Your task to perform on an android device: open app "Google Calendar" (install if not already installed) Image 0: 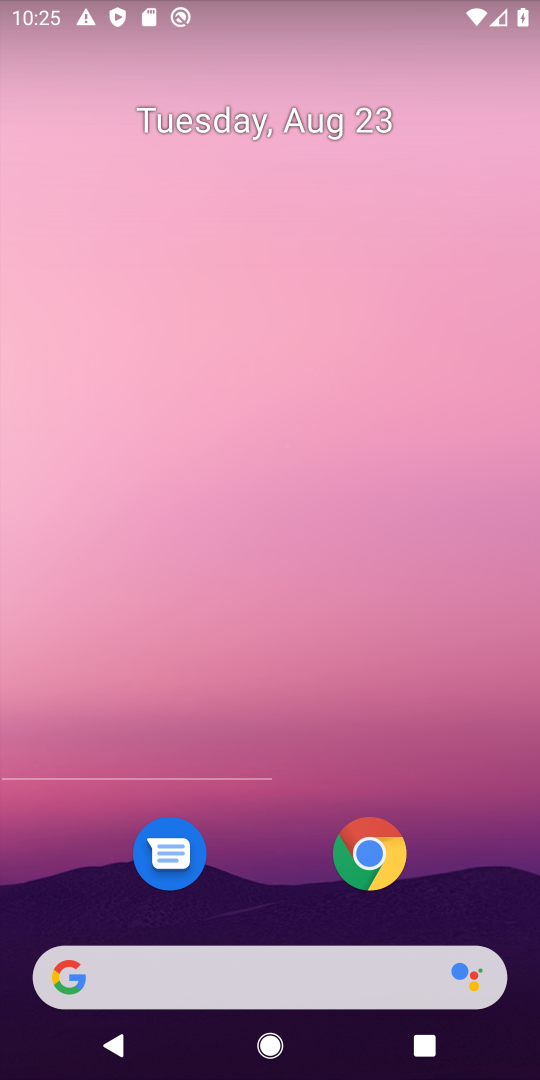
Step 0: drag from (365, 1022) to (375, 129)
Your task to perform on an android device: open app "Google Calendar" (install if not already installed) Image 1: 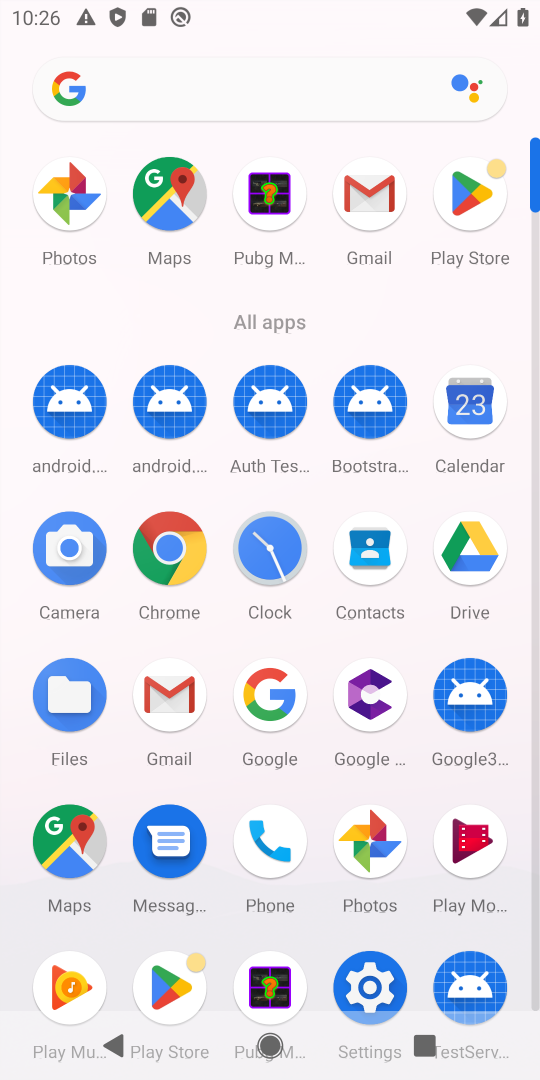
Step 1: click (453, 204)
Your task to perform on an android device: open app "Google Calendar" (install if not already installed) Image 2: 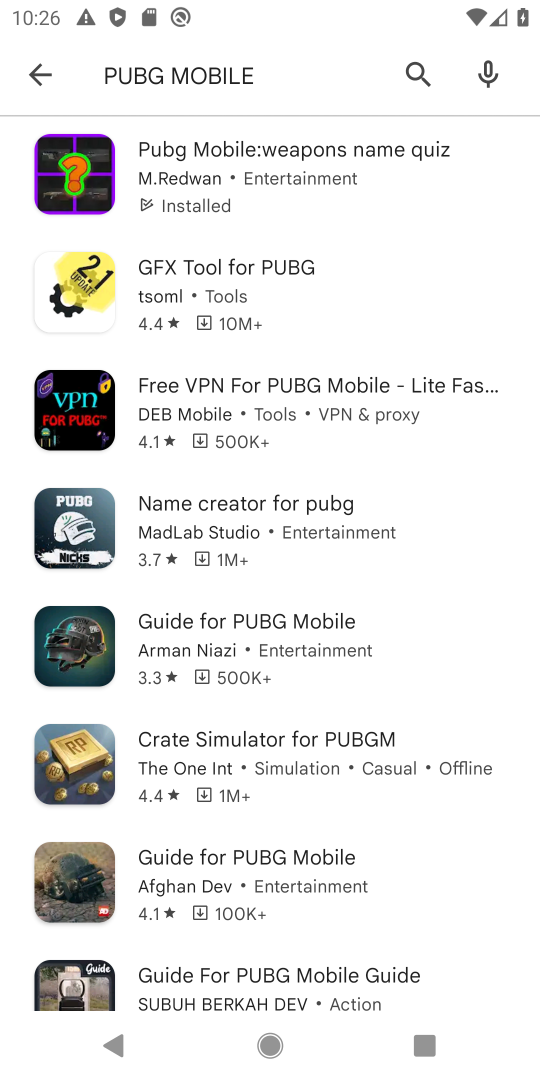
Step 2: press back button
Your task to perform on an android device: open app "Google Calendar" (install if not already installed) Image 3: 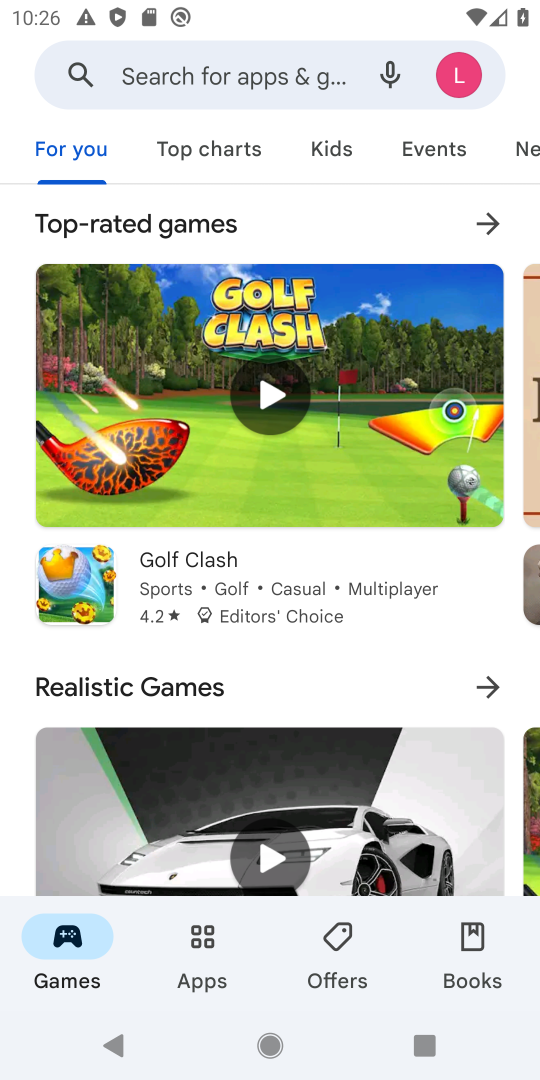
Step 3: click (243, 95)
Your task to perform on an android device: open app "Google Calendar" (install if not already installed) Image 4: 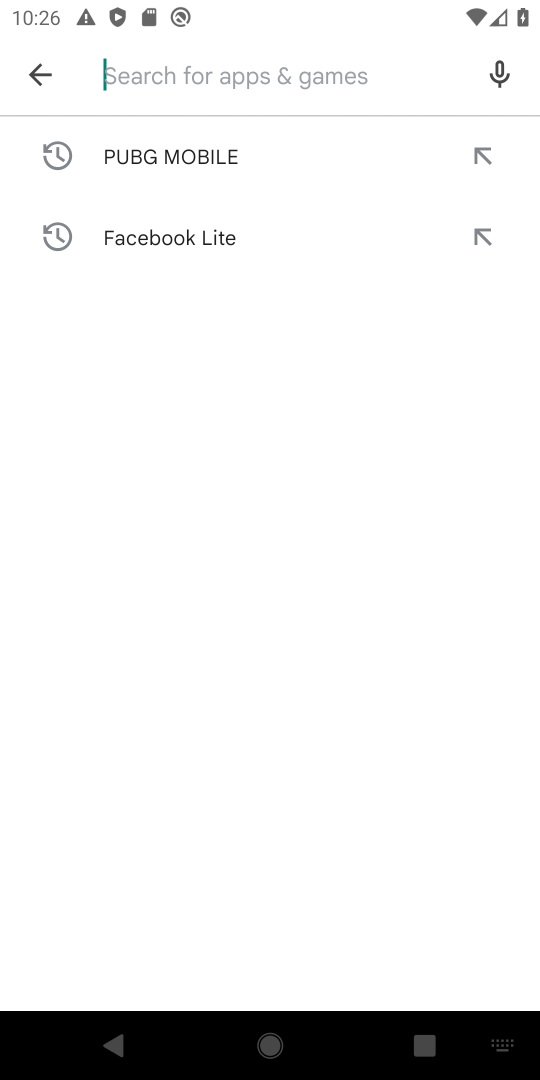
Step 4: type "Google Calendar"
Your task to perform on an android device: open app "Google Calendar" (install if not already installed) Image 5: 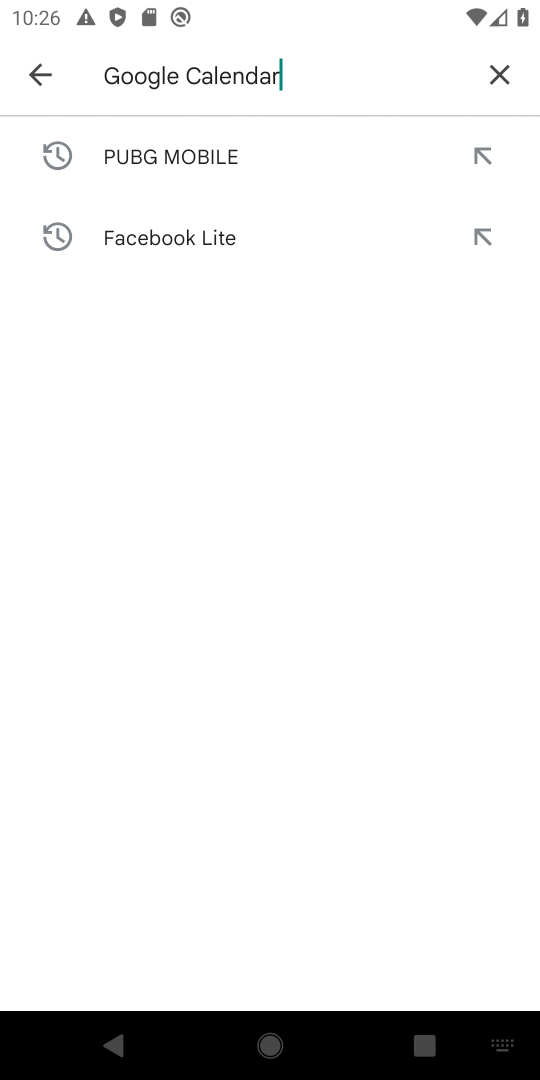
Step 5: press enter
Your task to perform on an android device: open app "Google Calendar" (install if not already installed) Image 6: 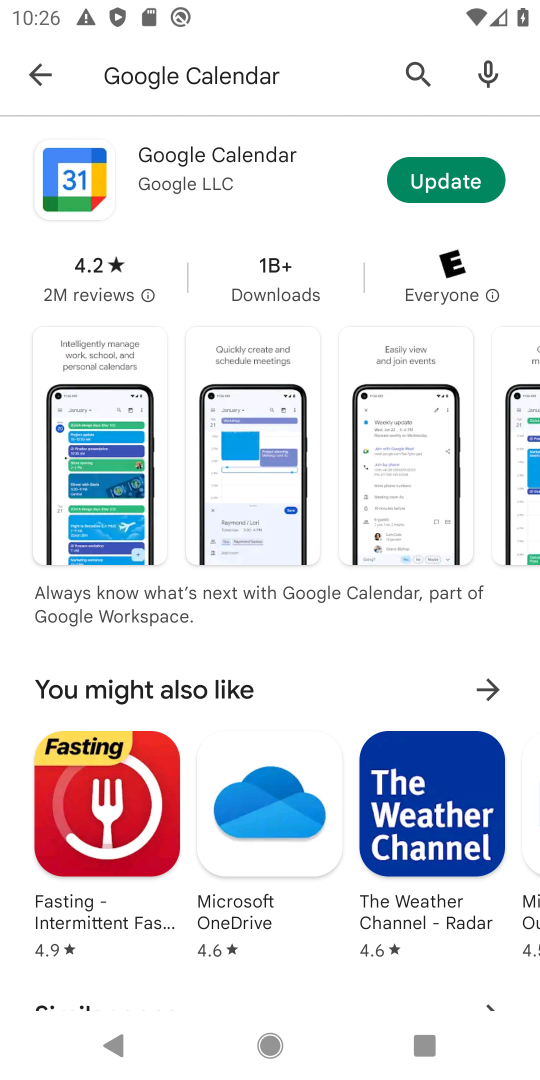
Step 6: click (422, 177)
Your task to perform on an android device: open app "Google Calendar" (install if not already installed) Image 7: 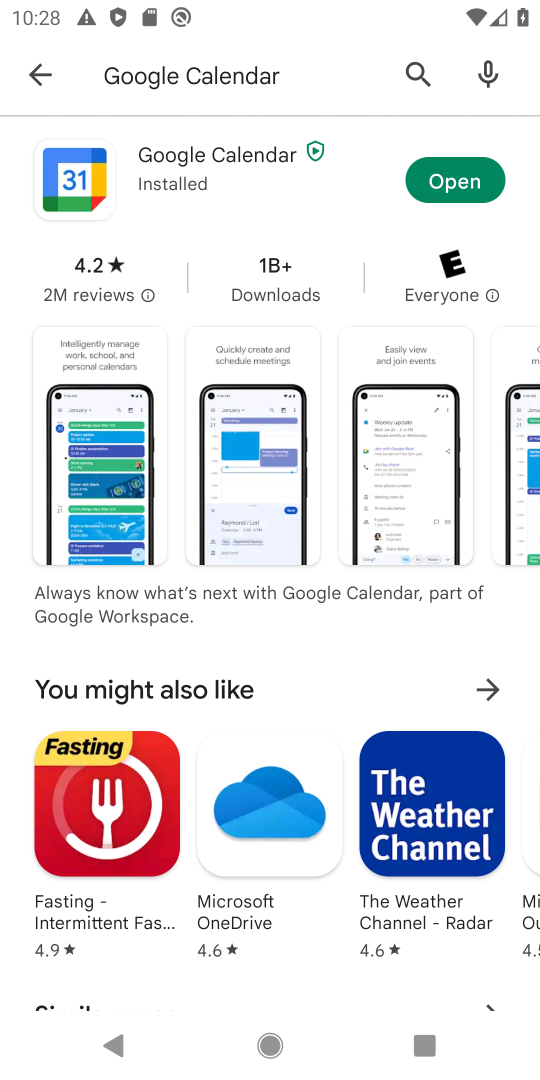
Step 7: click (436, 191)
Your task to perform on an android device: open app "Google Calendar" (install if not already installed) Image 8: 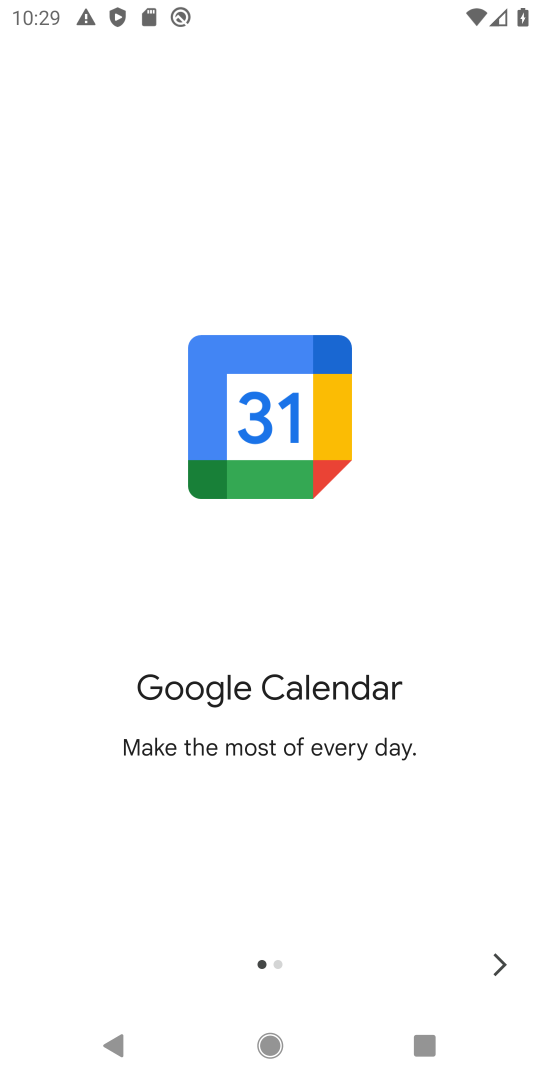
Step 8: click (504, 955)
Your task to perform on an android device: open app "Google Calendar" (install if not already installed) Image 9: 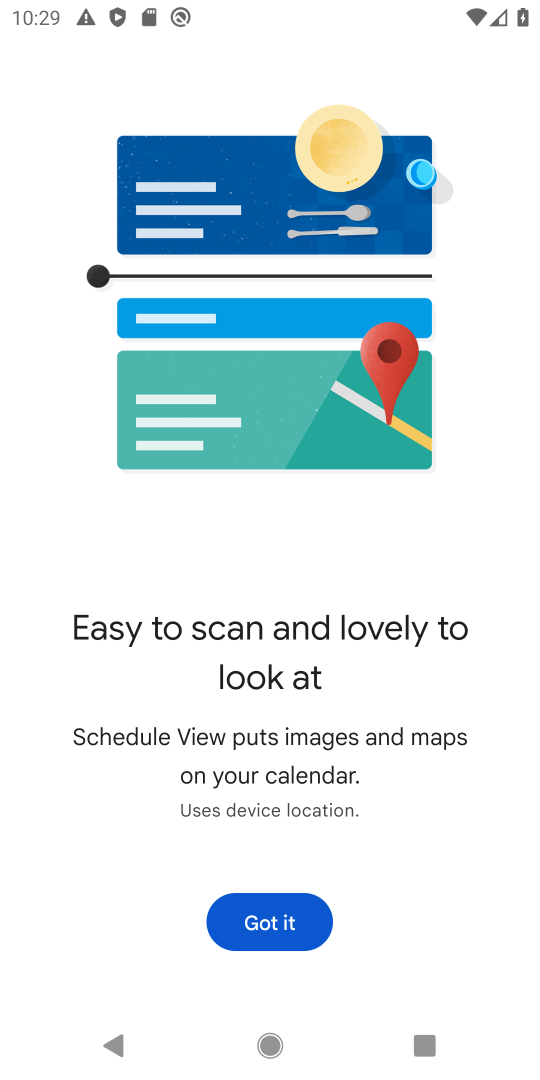
Step 9: task complete